Your task to perform on an android device: Search for Italian restaurants on Maps Image 0: 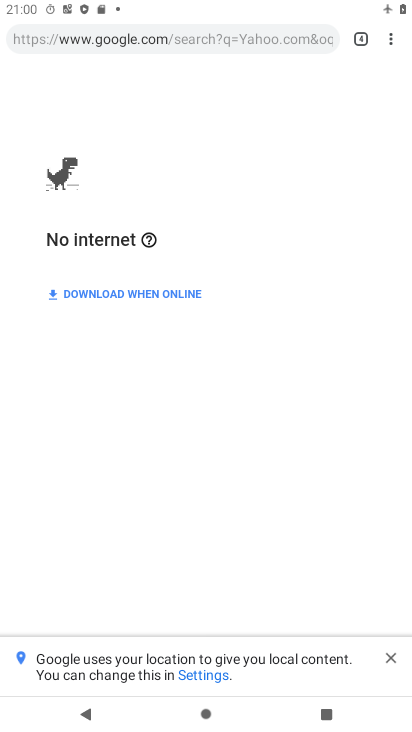
Step 0: press home button
Your task to perform on an android device: Search for Italian restaurants on Maps Image 1: 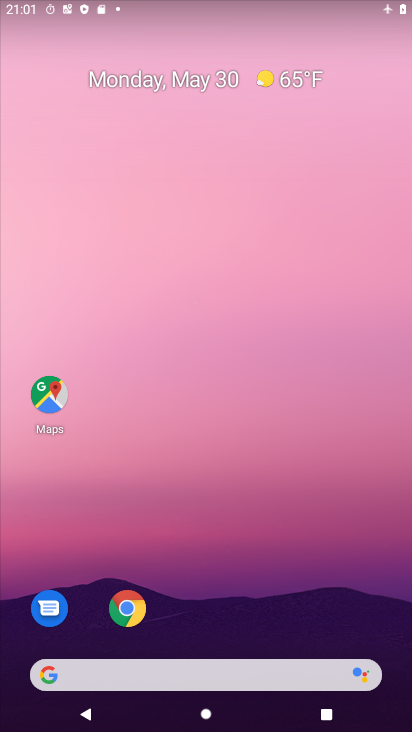
Step 1: click (57, 414)
Your task to perform on an android device: Search for Italian restaurants on Maps Image 2: 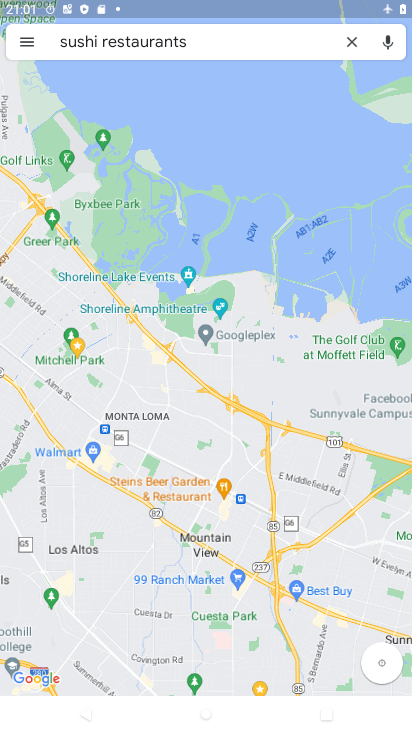
Step 2: click (244, 47)
Your task to perform on an android device: Search for Italian restaurants on Maps Image 3: 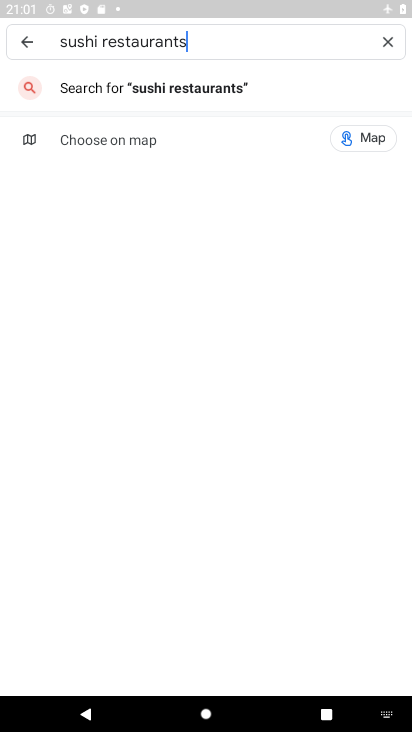
Step 3: click (390, 35)
Your task to perform on an android device: Search for Italian restaurants on Maps Image 4: 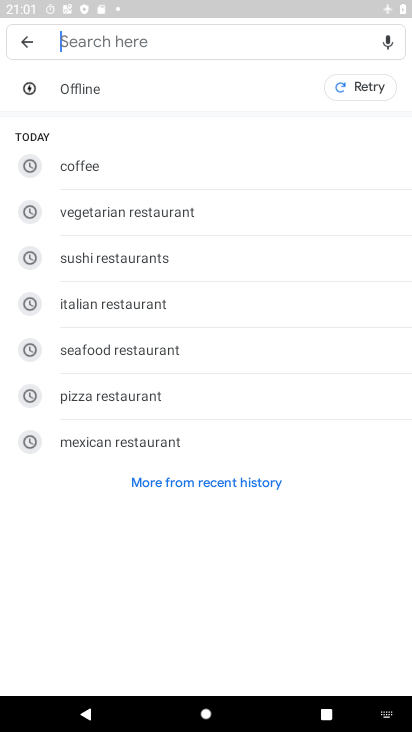
Step 4: click (121, 303)
Your task to perform on an android device: Search for Italian restaurants on Maps Image 5: 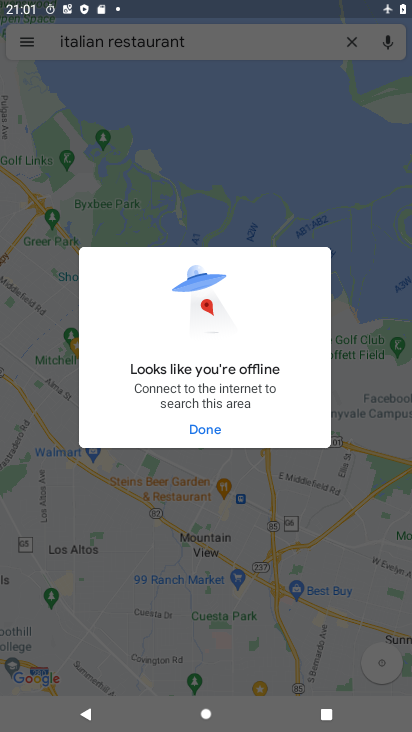
Step 5: task complete